Your task to perform on an android device: turn notification dots on Image 0: 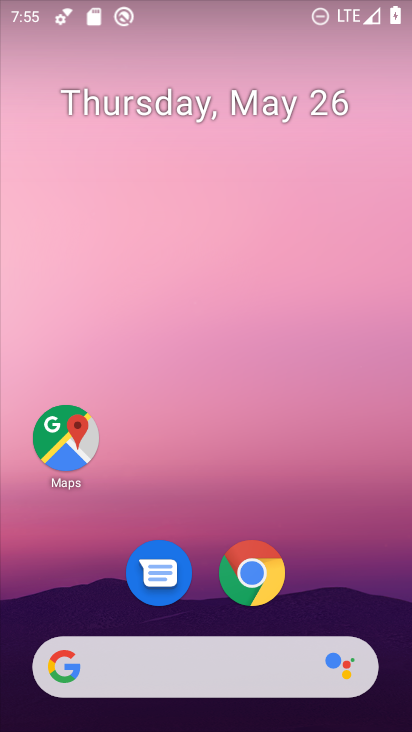
Step 0: drag from (321, 551) to (248, 68)
Your task to perform on an android device: turn notification dots on Image 1: 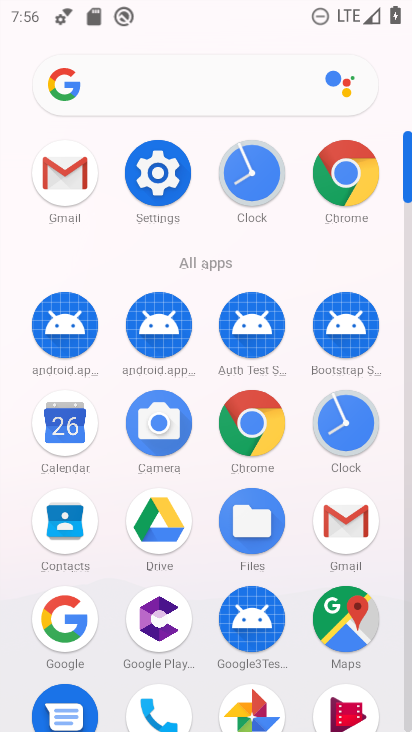
Step 1: drag from (18, 559) to (18, 243)
Your task to perform on an android device: turn notification dots on Image 2: 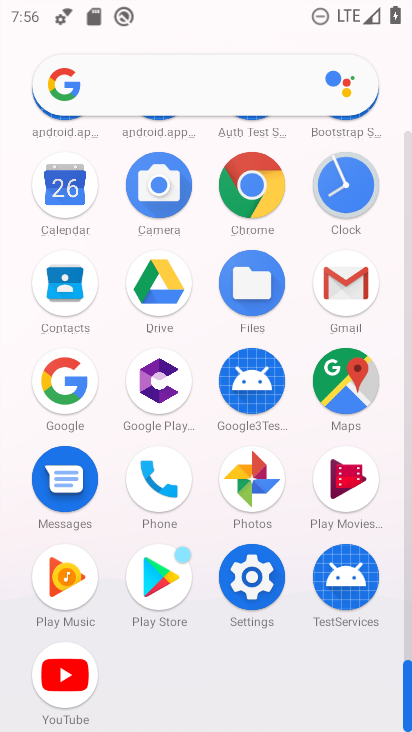
Step 2: click (255, 576)
Your task to perform on an android device: turn notification dots on Image 3: 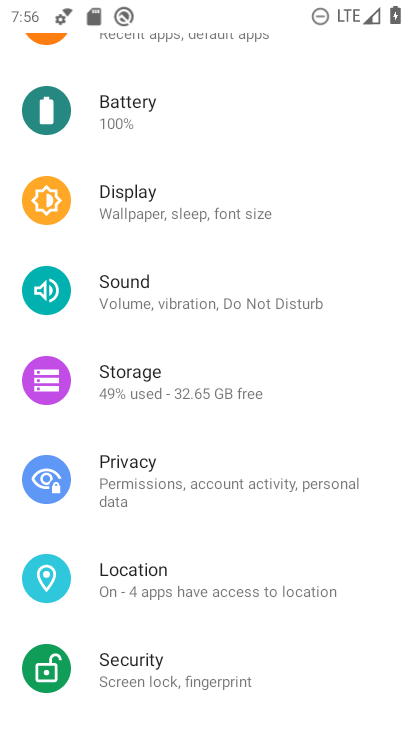
Step 3: drag from (188, 169) to (204, 559)
Your task to perform on an android device: turn notification dots on Image 4: 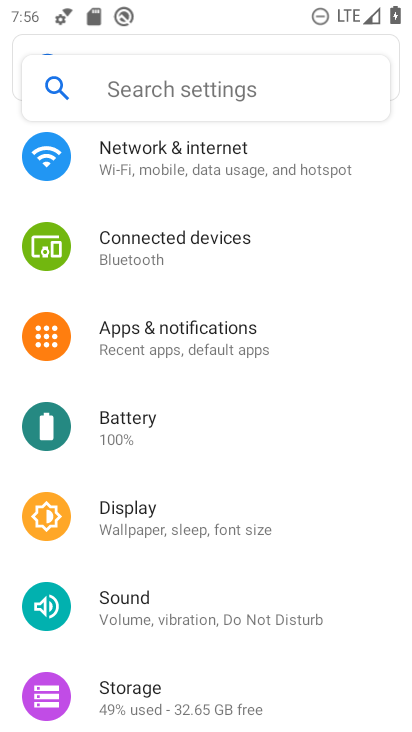
Step 4: click (209, 333)
Your task to perform on an android device: turn notification dots on Image 5: 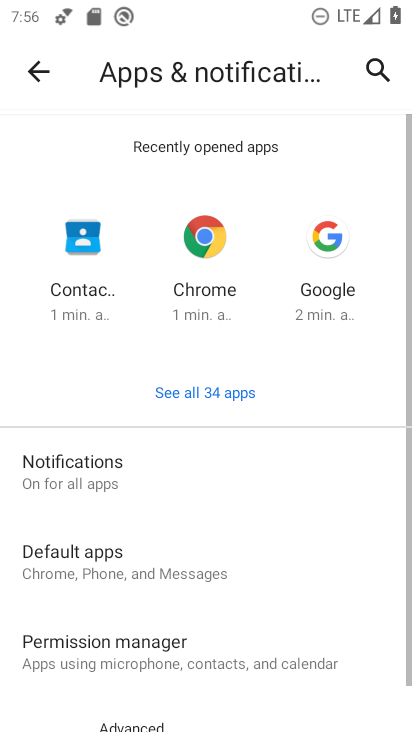
Step 5: click (168, 472)
Your task to perform on an android device: turn notification dots on Image 6: 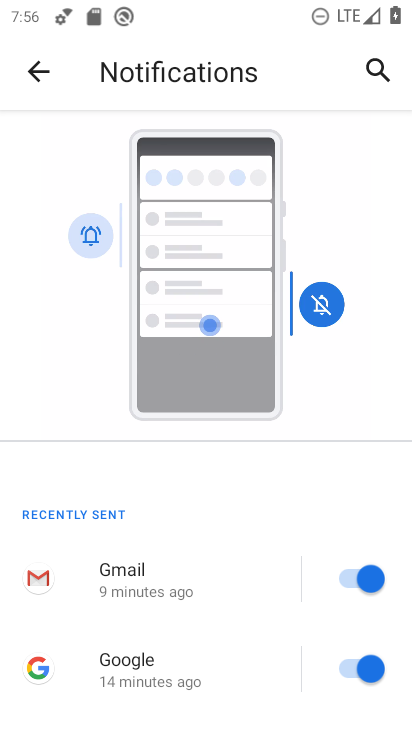
Step 6: drag from (195, 580) to (203, 179)
Your task to perform on an android device: turn notification dots on Image 7: 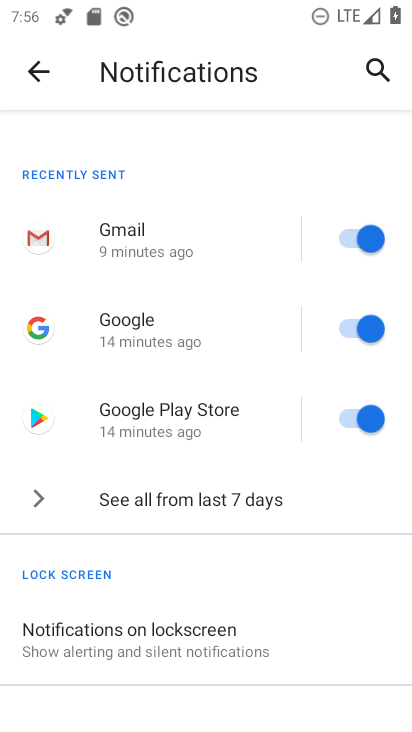
Step 7: drag from (209, 598) to (231, 195)
Your task to perform on an android device: turn notification dots on Image 8: 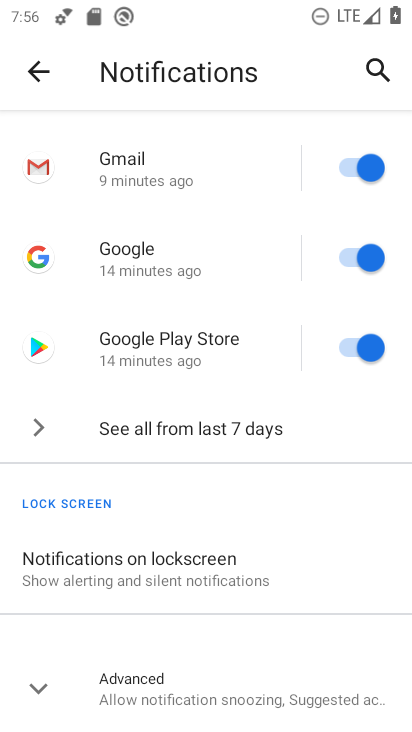
Step 8: click (123, 687)
Your task to perform on an android device: turn notification dots on Image 9: 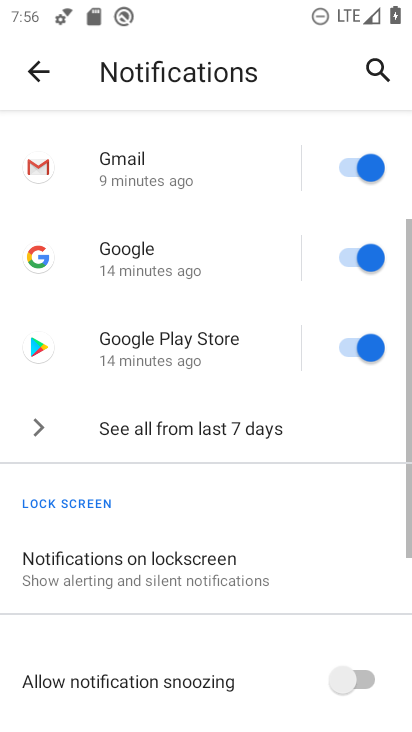
Step 9: task complete